Your task to perform on an android device: Open Google Chrome and open the bookmarks view Image 0: 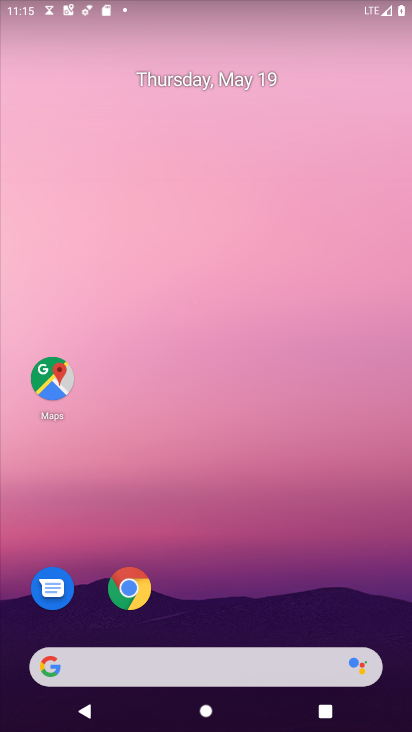
Step 0: click (132, 600)
Your task to perform on an android device: Open Google Chrome and open the bookmarks view Image 1: 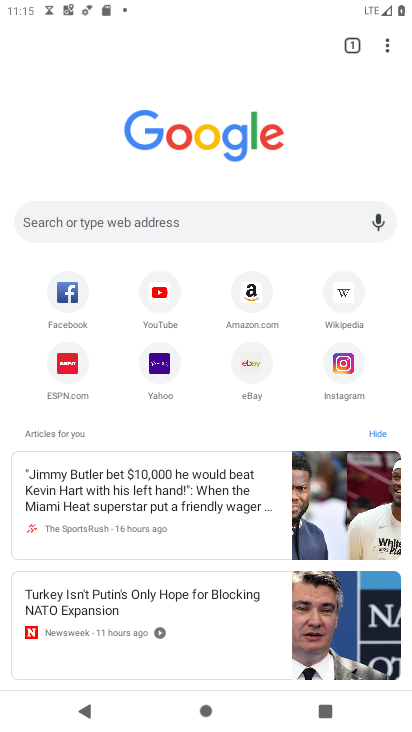
Step 1: click (381, 39)
Your task to perform on an android device: Open Google Chrome and open the bookmarks view Image 2: 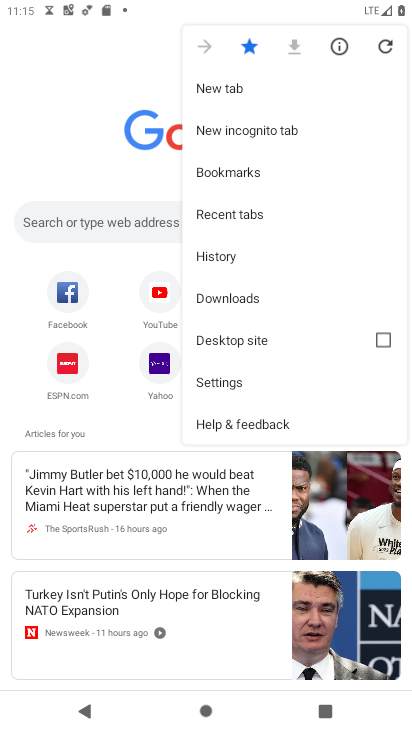
Step 2: click (263, 166)
Your task to perform on an android device: Open Google Chrome and open the bookmarks view Image 3: 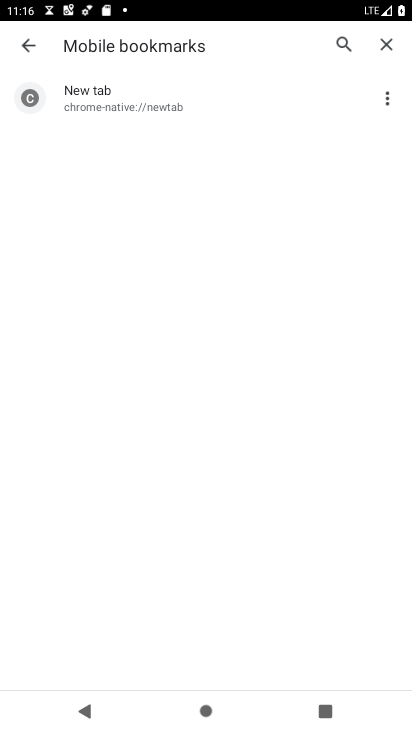
Step 3: click (204, 98)
Your task to perform on an android device: Open Google Chrome and open the bookmarks view Image 4: 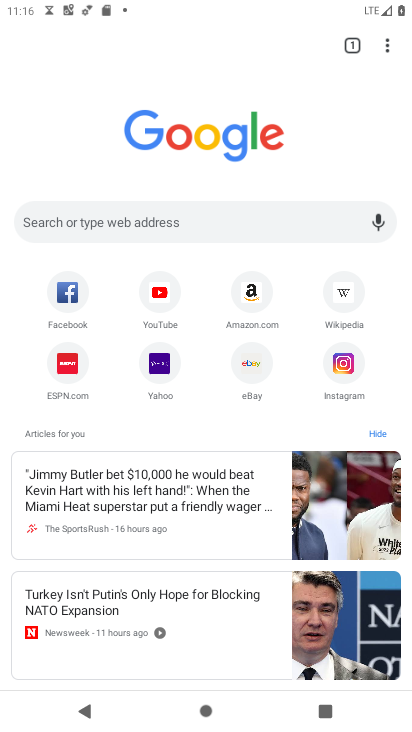
Step 4: task complete